Your task to perform on an android device: Go to Maps Image 0: 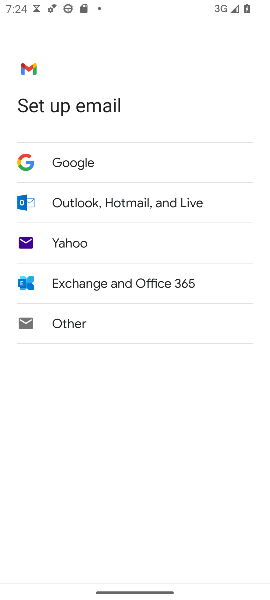
Step 0: press home button
Your task to perform on an android device: Go to Maps Image 1: 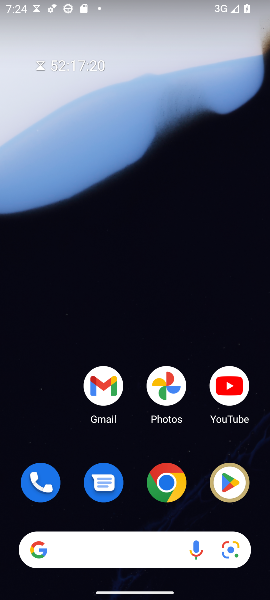
Step 1: drag from (157, 510) to (158, 120)
Your task to perform on an android device: Go to Maps Image 2: 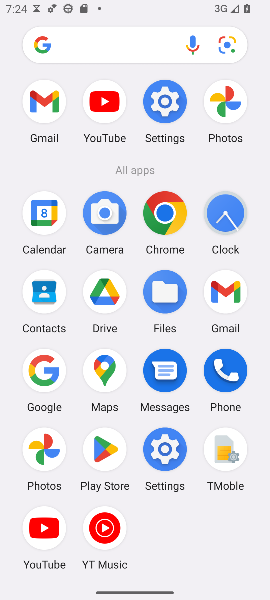
Step 2: click (118, 362)
Your task to perform on an android device: Go to Maps Image 3: 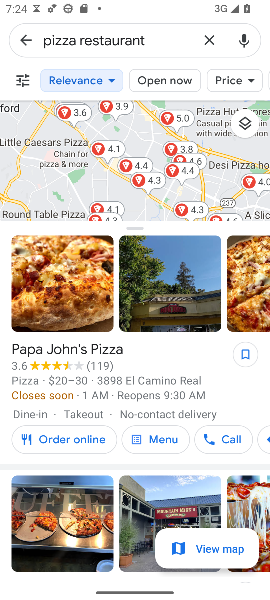
Step 3: task complete